Your task to perform on an android device: Check the weather Image 0: 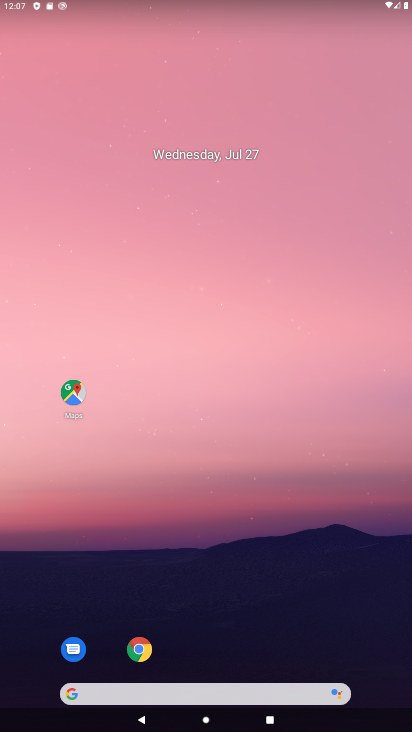
Step 0: click (228, 696)
Your task to perform on an android device: Check the weather Image 1: 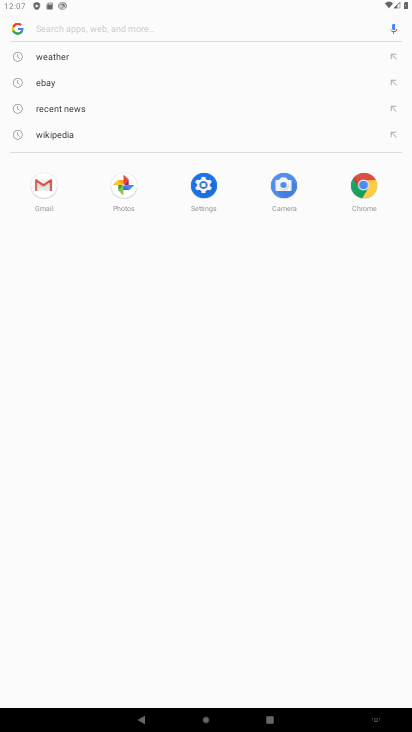
Step 1: click (58, 54)
Your task to perform on an android device: Check the weather Image 2: 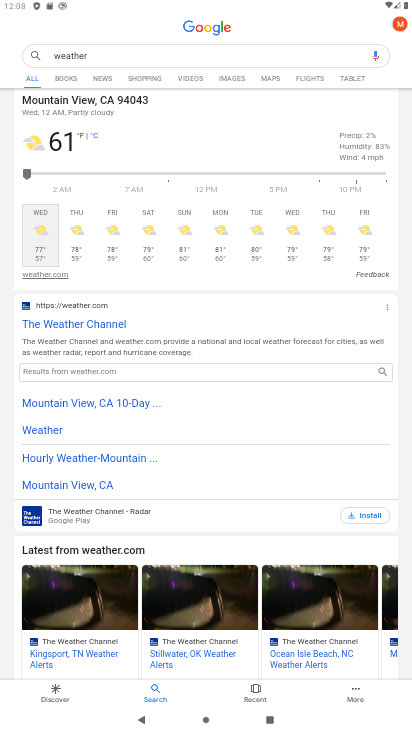
Step 2: task complete